Your task to perform on an android device: find snoozed emails in the gmail app Image 0: 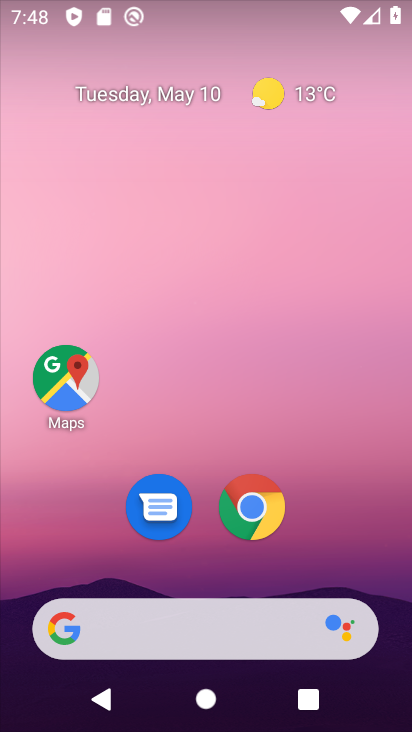
Step 0: drag from (190, 484) to (255, 94)
Your task to perform on an android device: find snoozed emails in the gmail app Image 1: 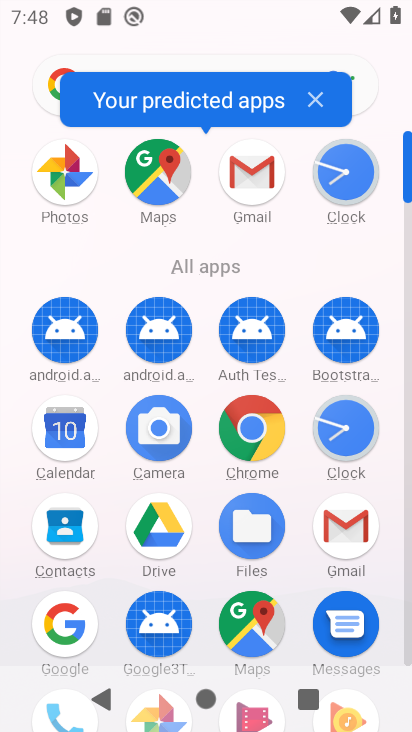
Step 1: click (339, 522)
Your task to perform on an android device: find snoozed emails in the gmail app Image 2: 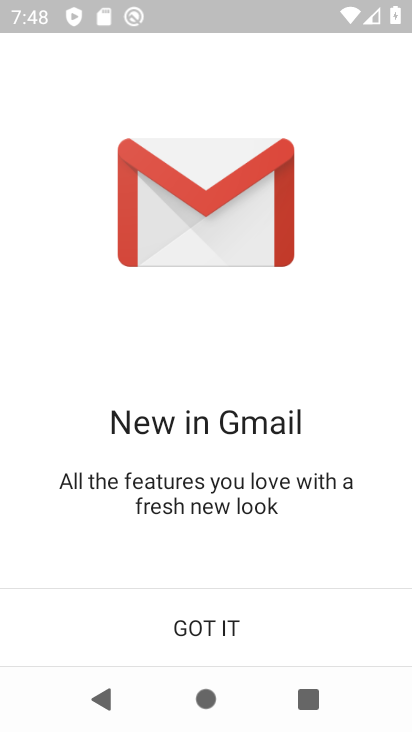
Step 2: click (224, 640)
Your task to perform on an android device: find snoozed emails in the gmail app Image 3: 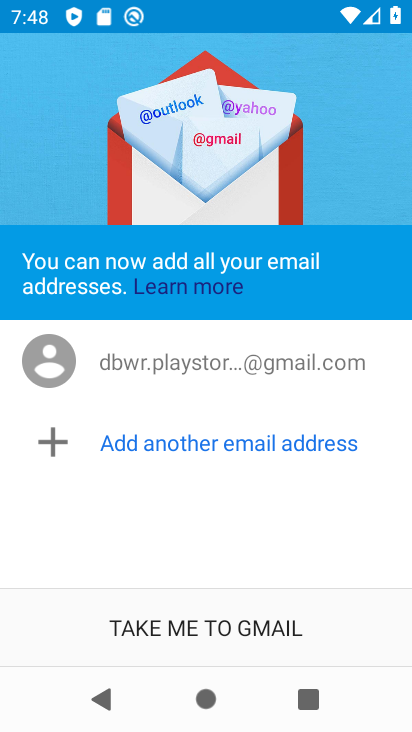
Step 3: click (225, 639)
Your task to perform on an android device: find snoozed emails in the gmail app Image 4: 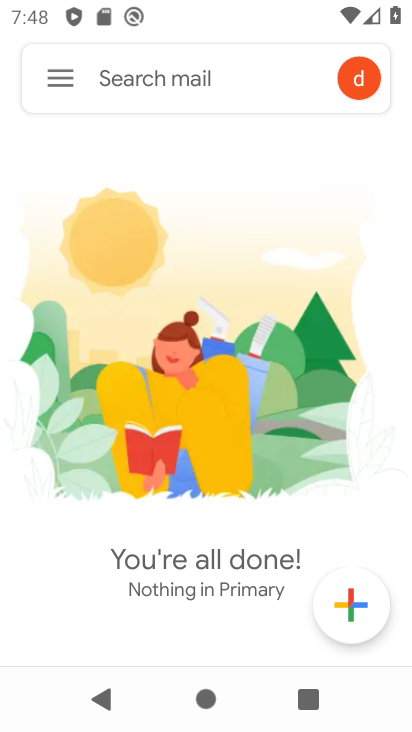
Step 4: click (71, 73)
Your task to perform on an android device: find snoozed emails in the gmail app Image 5: 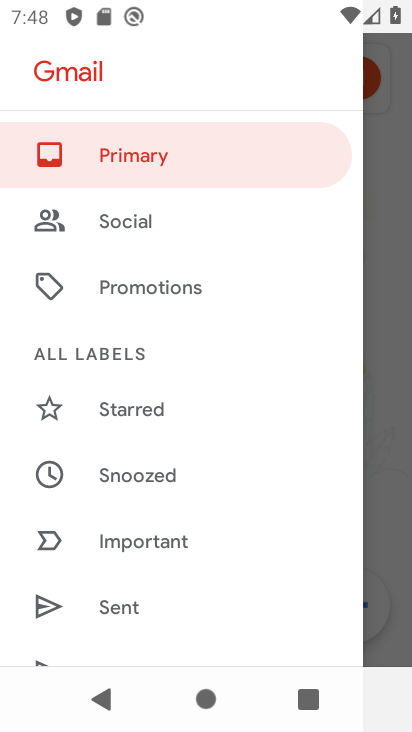
Step 5: click (162, 489)
Your task to perform on an android device: find snoozed emails in the gmail app Image 6: 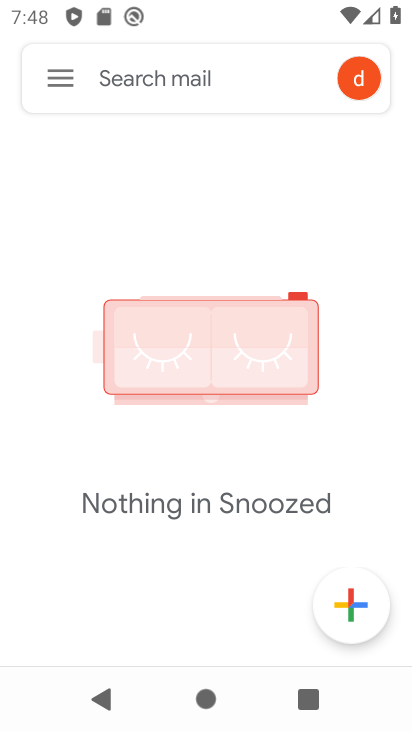
Step 6: task complete